Your task to perform on an android device: open device folders in google photos Image 0: 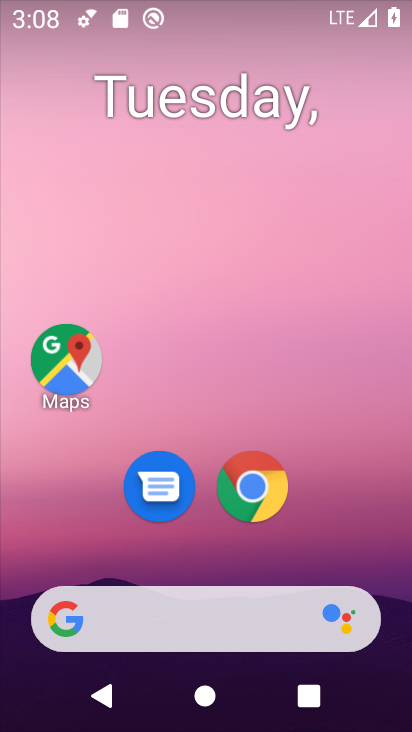
Step 0: press home button
Your task to perform on an android device: open device folders in google photos Image 1: 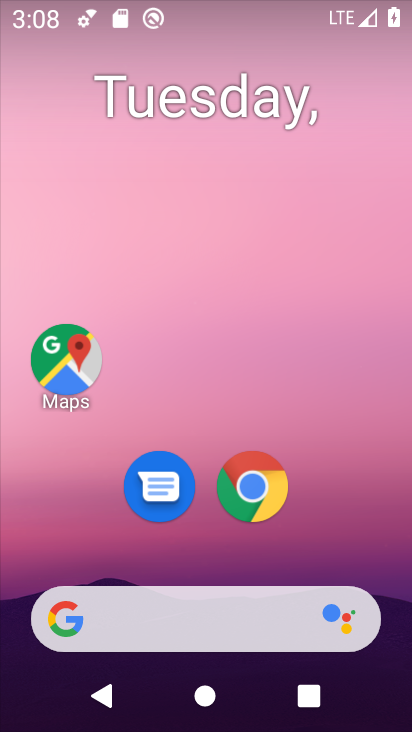
Step 1: drag from (211, 556) to (217, 82)
Your task to perform on an android device: open device folders in google photos Image 2: 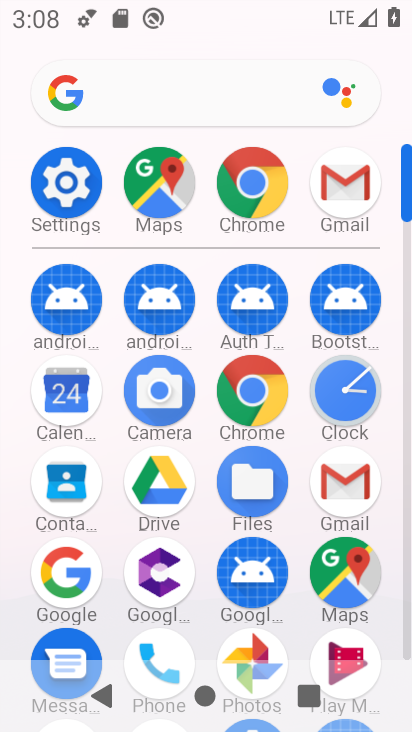
Step 2: drag from (212, 449) to (215, 173)
Your task to perform on an android device: open device folders in google photos Image 3: 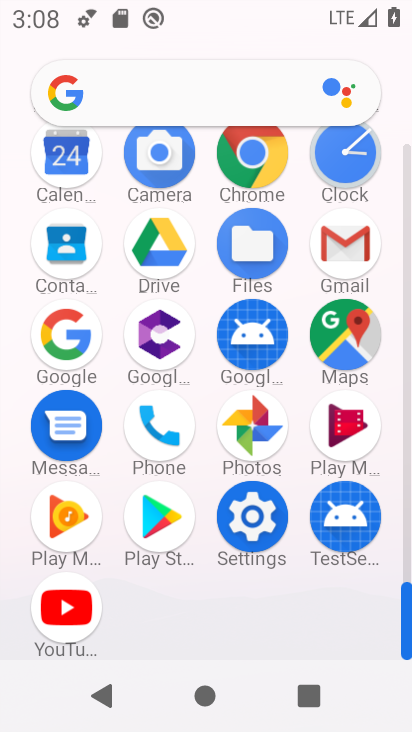
Step 3: click (250, 420)
Your task to perform on an android device: open device folders in google photos Image 4: 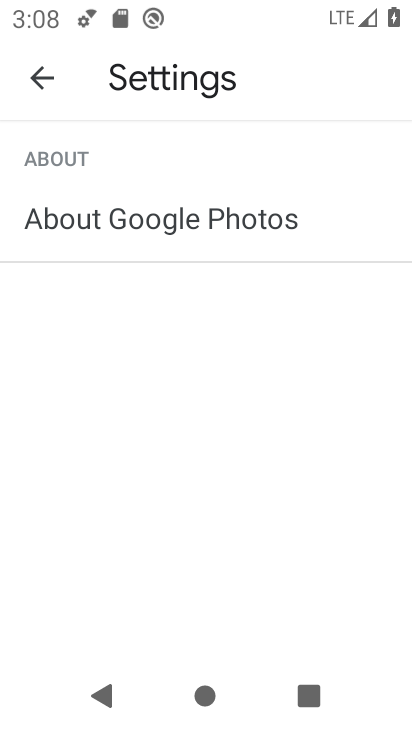
Step 4: click (39, 83)
Your task to perform on an android device: open device folders in google photos Image 5: 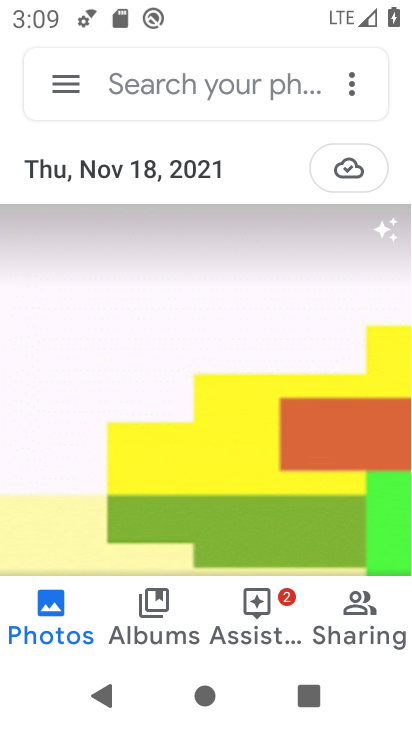
Step 5: click (65, 74)
Your task to perform on an android device: open device folders in google photos Image 6: 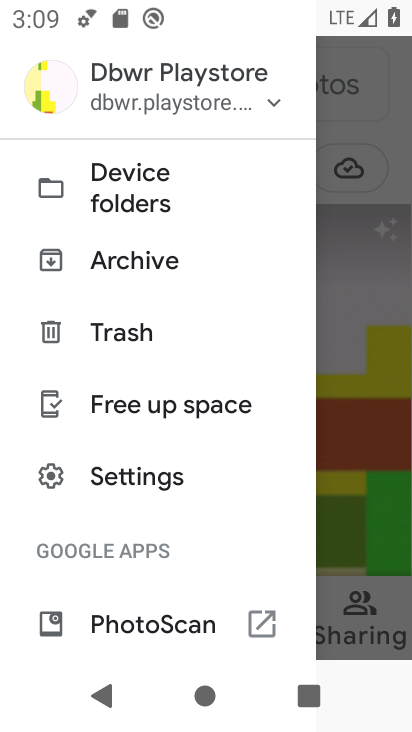
Step 6: click (144, 186)
Your task to perform on an android device: open device folders in google photos Image 7: 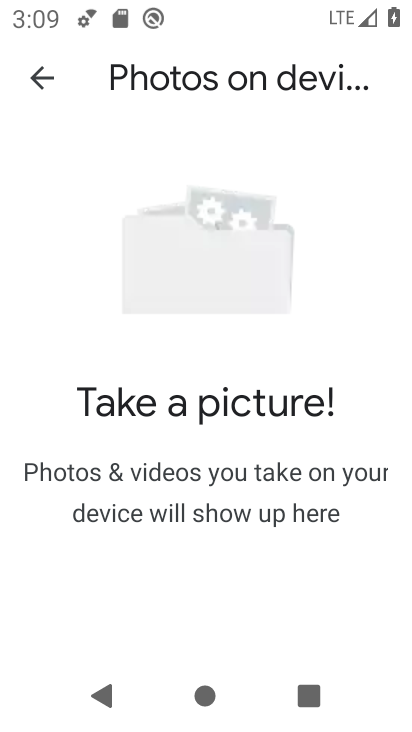
Step 7: task complete